Your task to perform on an android device: turn off improve location accuracy Image 0: 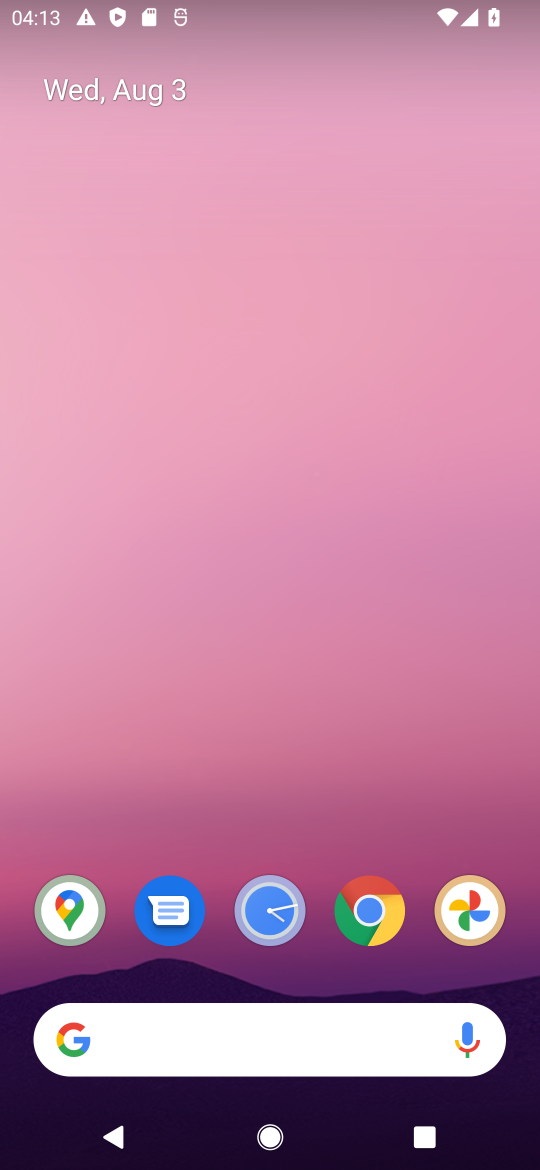
Step 0: press home button
Your task to perform on an android device: turn off improve location accuracy Image 1: 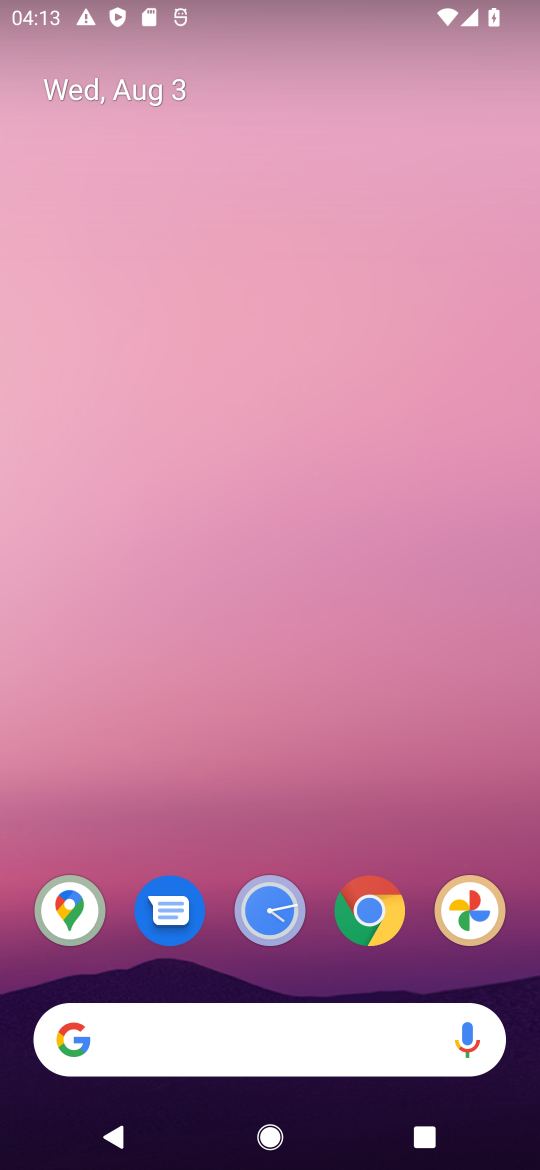
Step 1: drag from (315, 841) to (349, 10)
Your task to perform on an android device: turn off improve location accuracy Image 2: 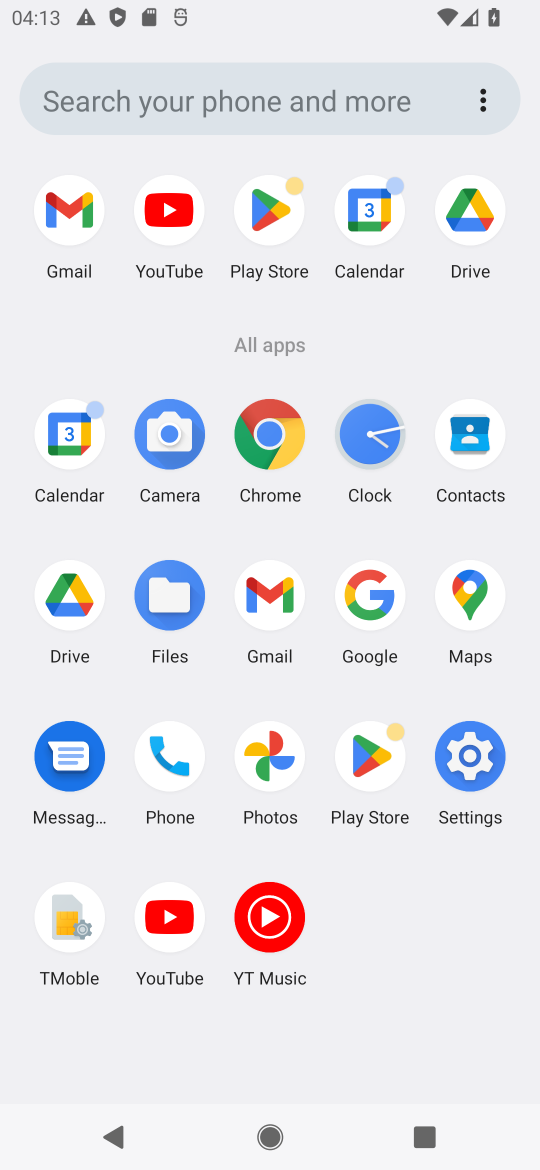
Step 2: click (468, 745)
Your task to perform on an android device: turn off improve location accuracy Image 3: 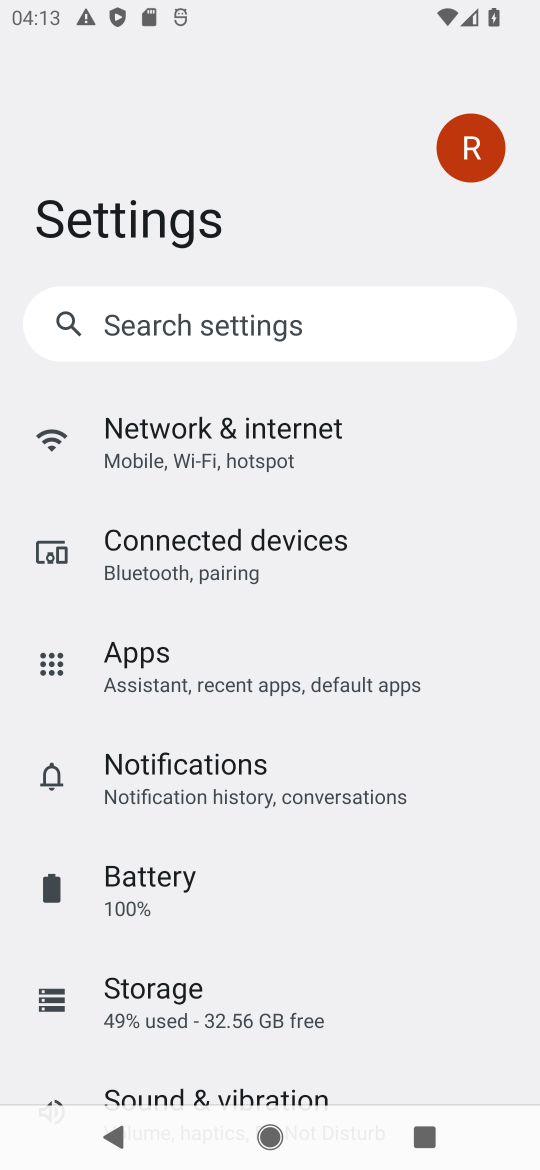
Step 3: drag from (289, 1050) to (324, 257)
Your task to perform on an android device: turn off improve location accuracy Image 4: 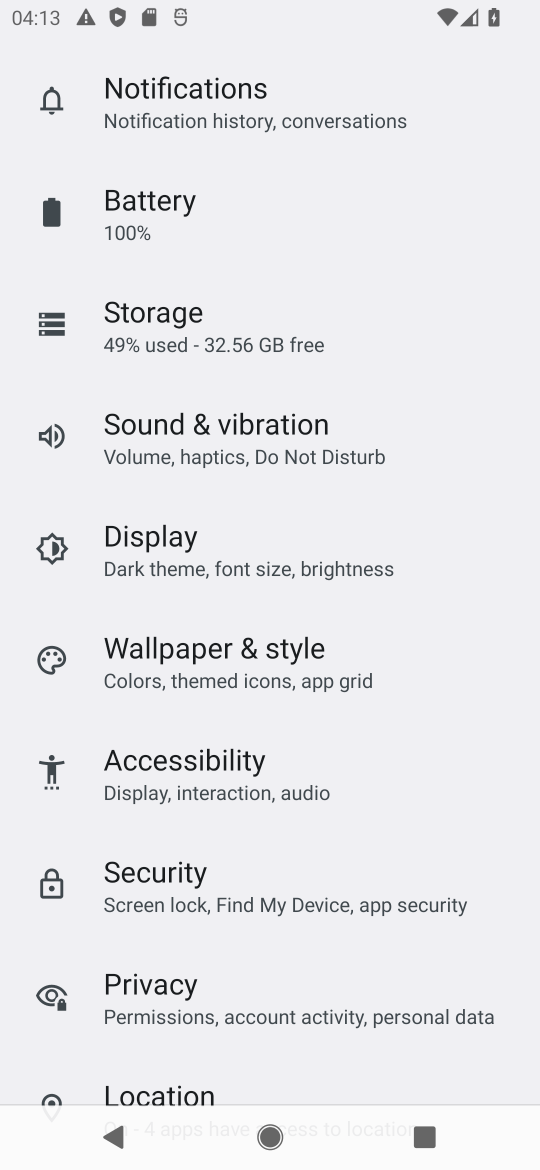
Step 4: click (244, 1074)
Your task to perform on an android device: turn off improve location accuracy Image 5: 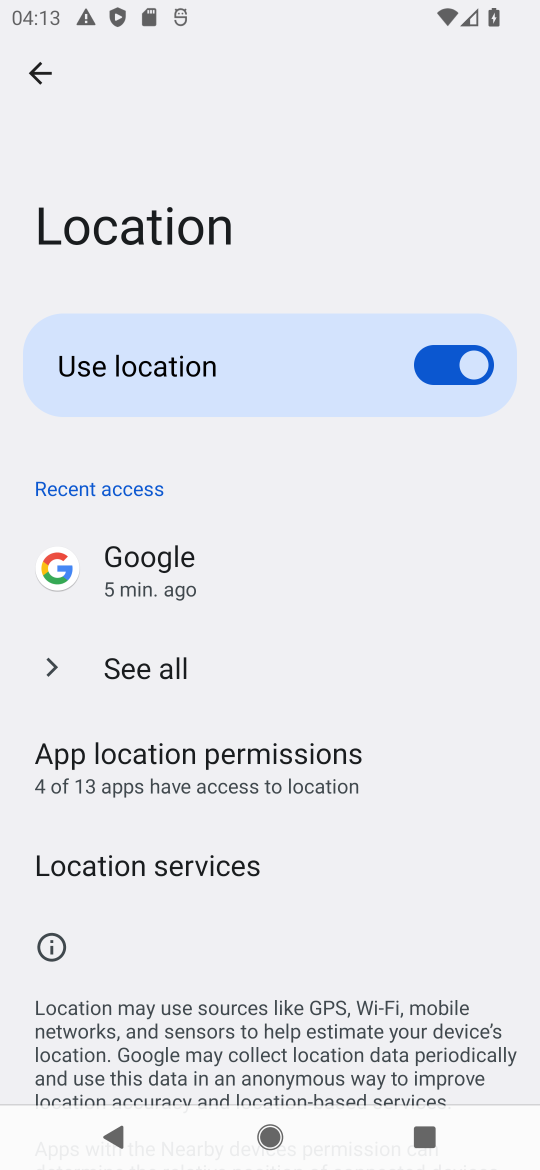
Step 5: drag from (241, 932) to (278, 394)
Your task to perform on an android device: turn off improve location accuracy Image 6: 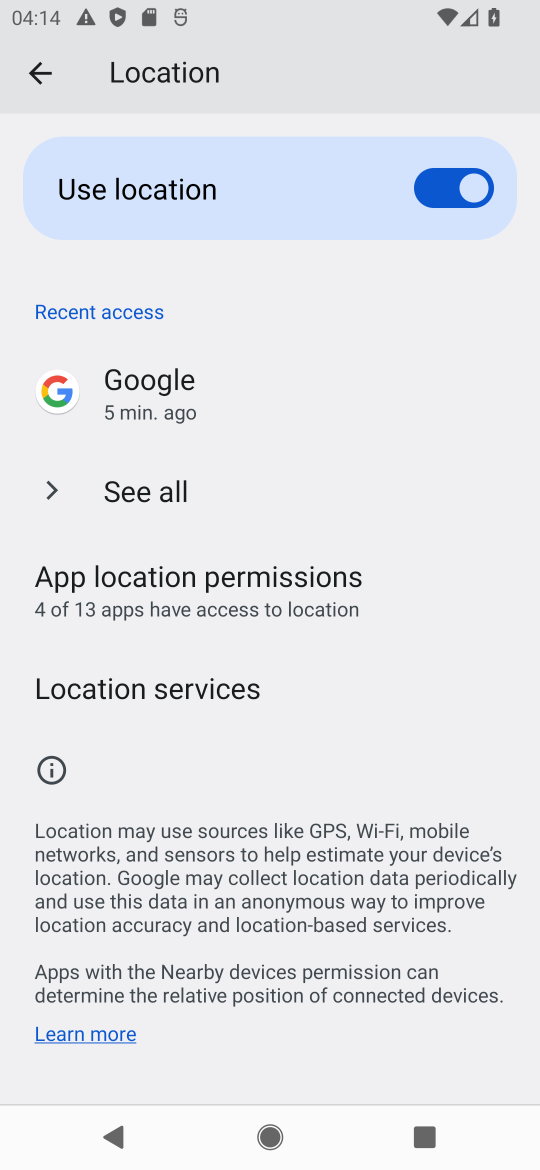
Step 6: click (133, 686)
Your task to perform on an android device: turn off improve location accuracy Image 7: 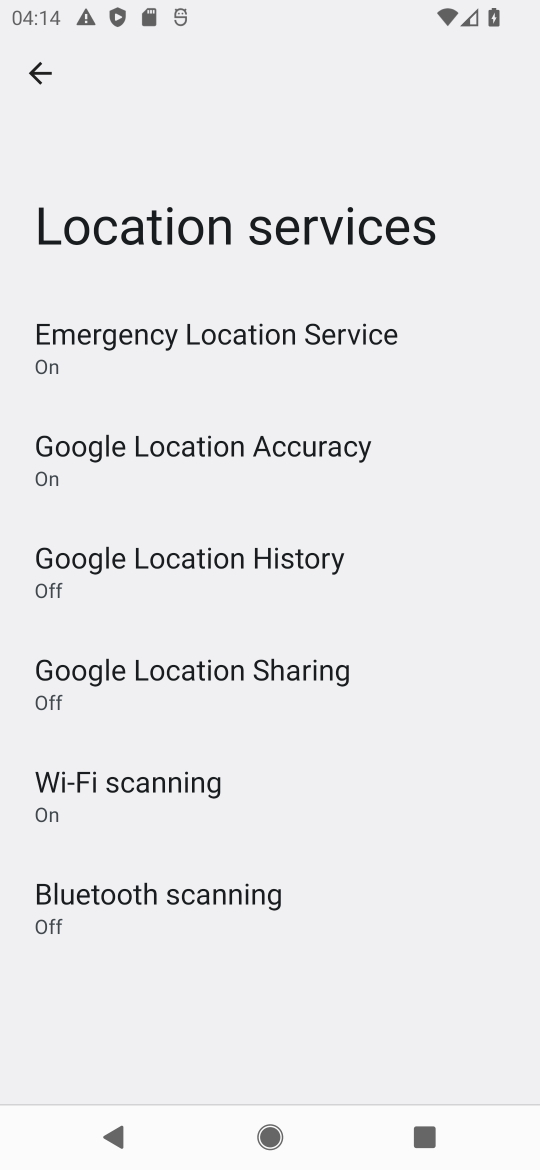
Step 7: click (83, 461)
Your task to perform on an android device: turn off improve location accuracy Image 8: 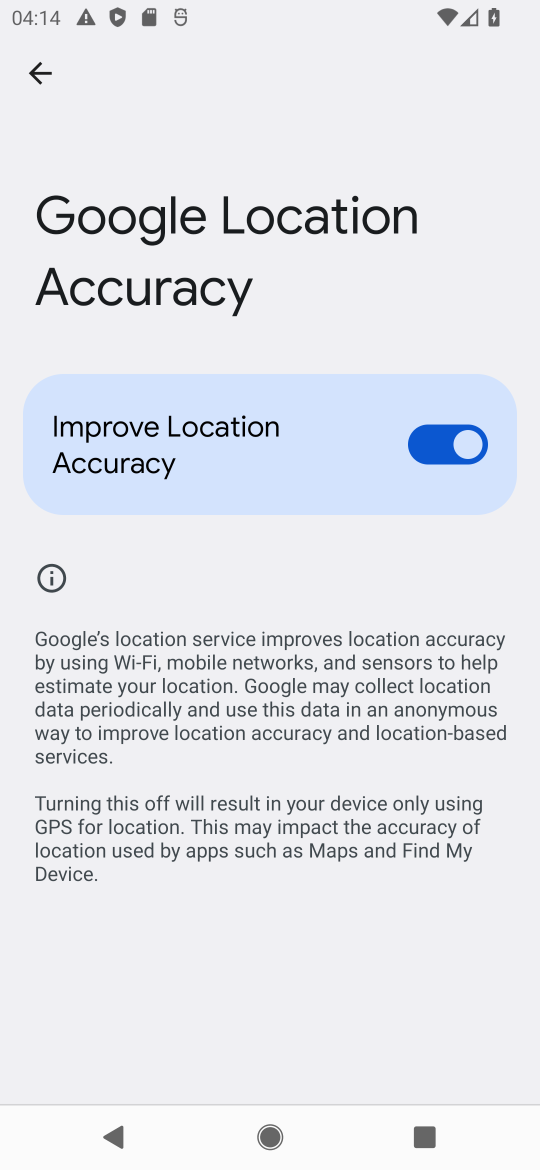
Step 8: click (447, 444)
Your task to perform on an android device: turn off improve location accuracy Image 9: 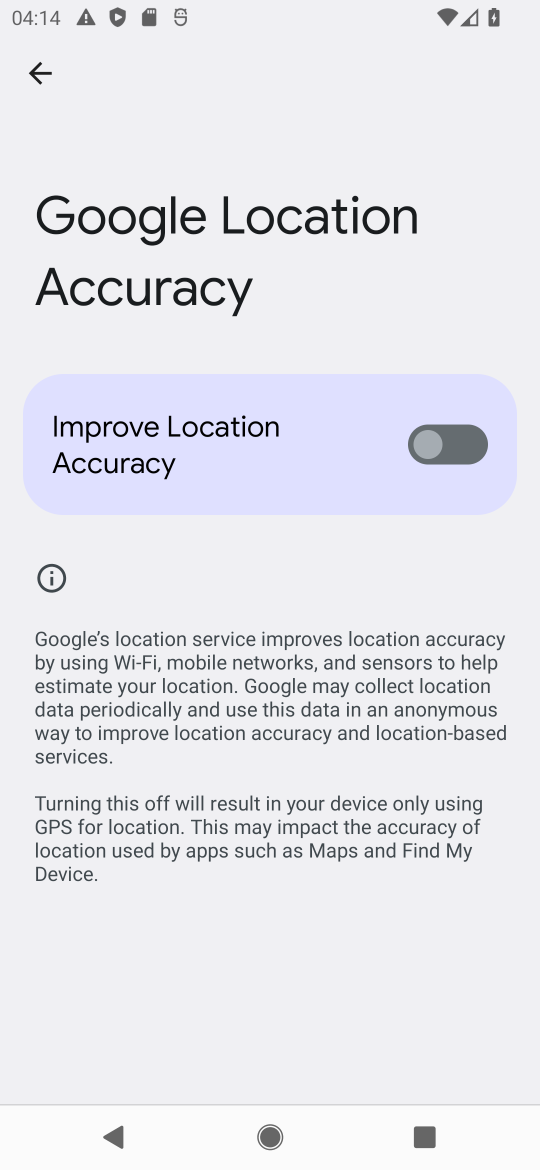
Step 9: task complete